Your task to perform on an android device: turn pop-ups off in chrome Image 0: 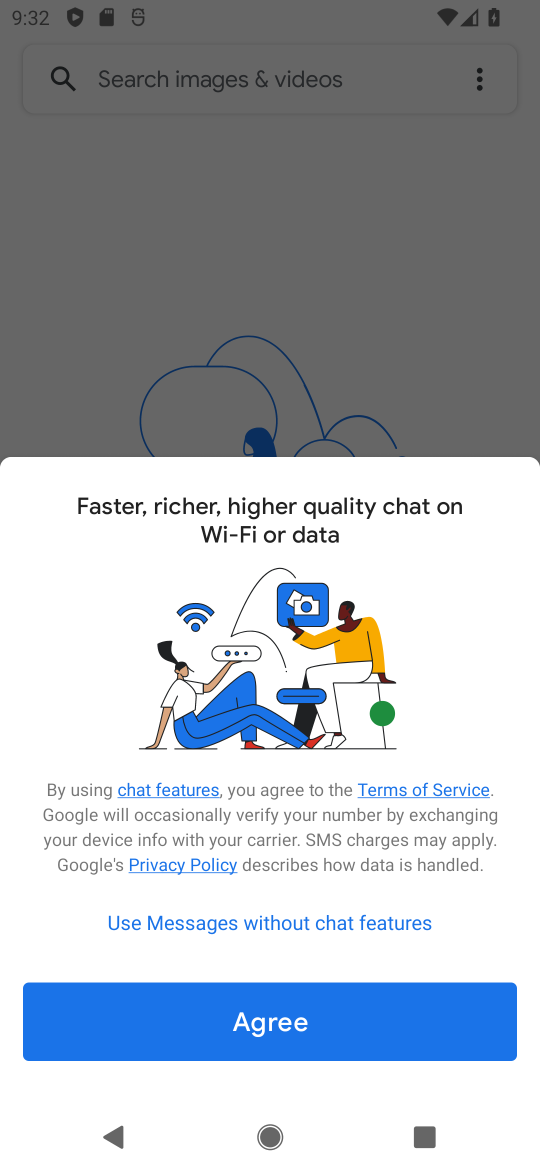
Step 0: press home button
Your task to perform on an android device: turn pop-ups off in chrome Image 1: 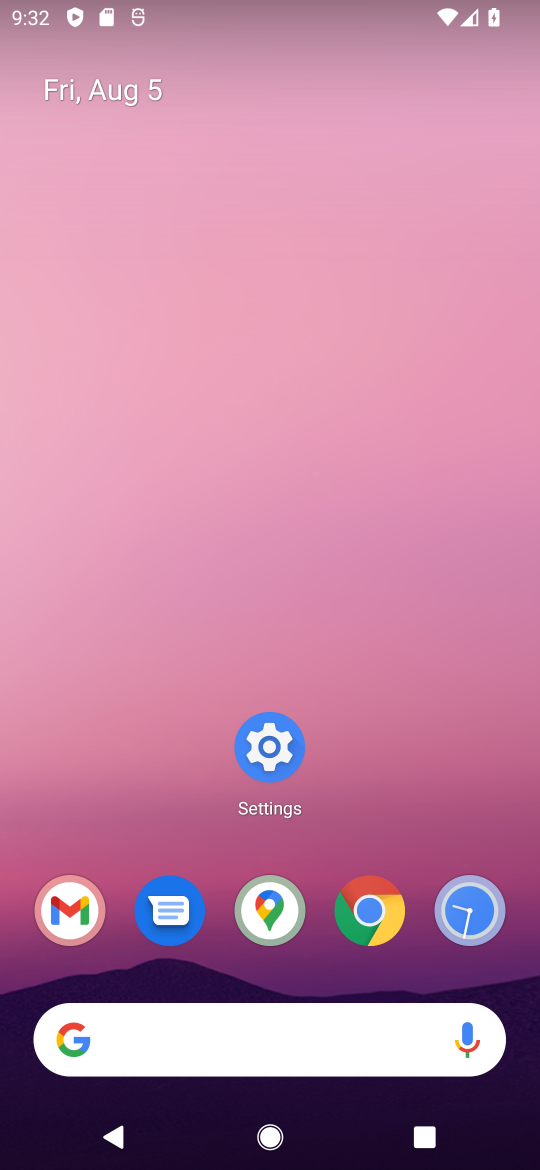
Step 1: click (374, 914)
Your task to perform on an android device: turn pop-ups off in chrome Image 2: 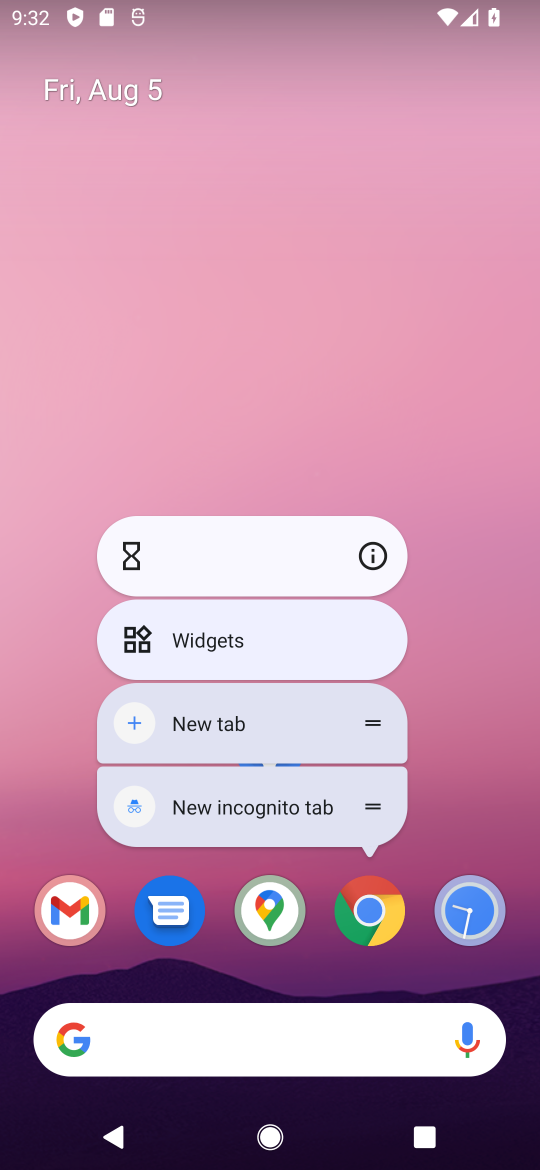
Step 2: click (374, 914)
Your task to perform on an android device: turn pop-ups off in chrome Image 3: 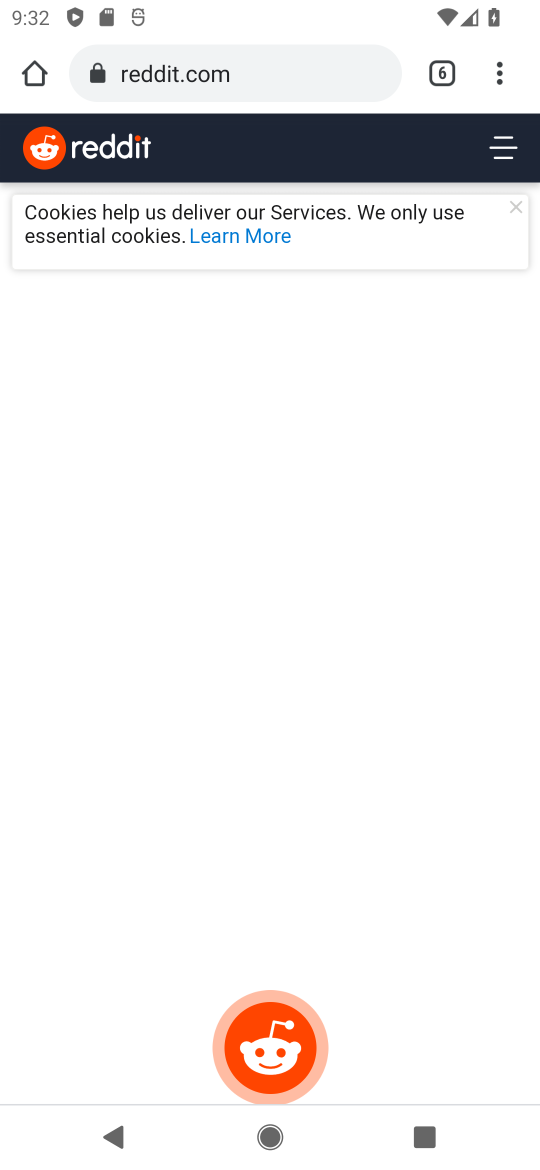
Step 3: drag from (497, 79) to (378, 928)
Your task to perform on an android device: turn pop-ups off in chrome Image 4: 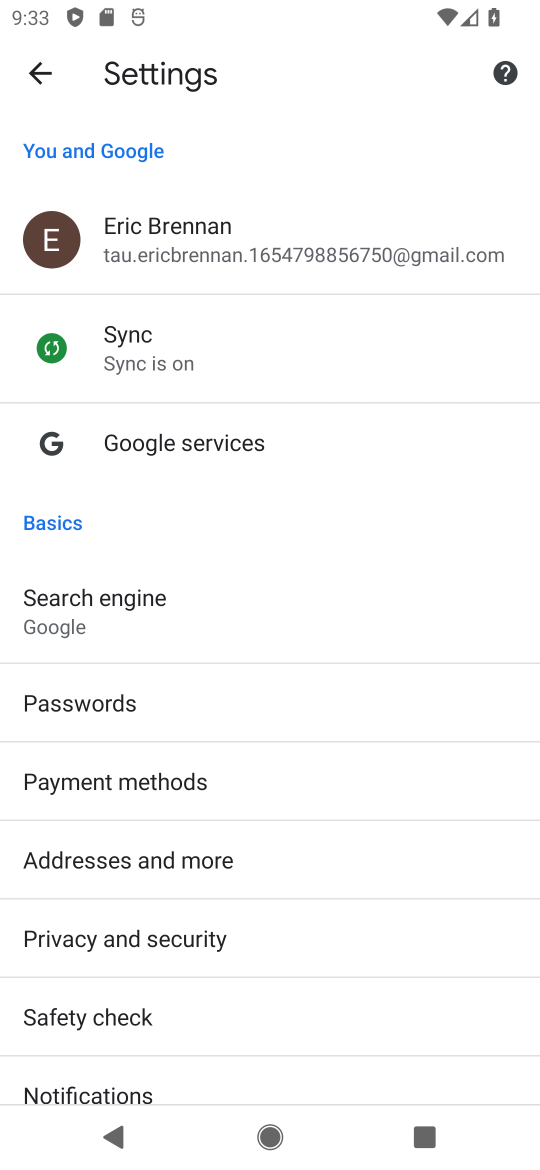
Step 4: drag from (238, 1001) to (530, 218)
Your task to perform on an android device: turn pop-ups off in chrome Image 5: 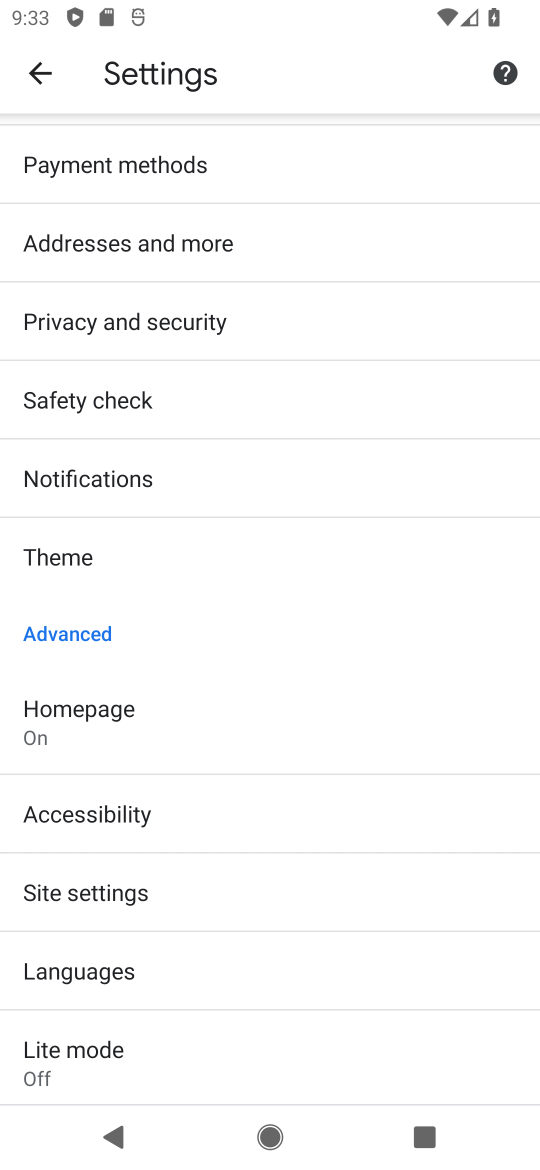
Step 5: click (131, 893)
Your task to perform on an android device: turn pop-ups off in chrome Image 6: 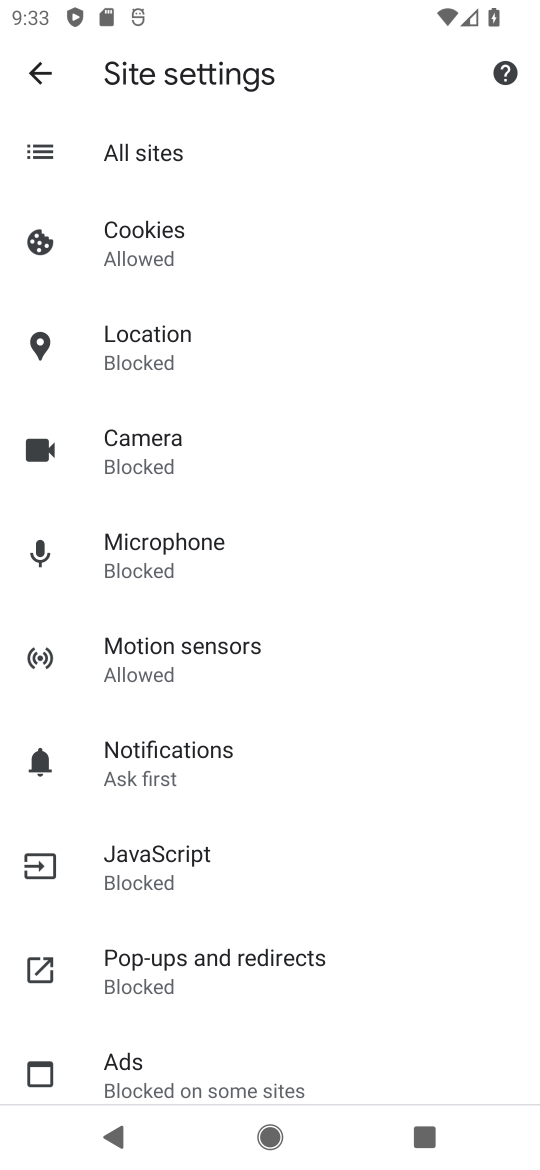
Step 6: click (181, 956)
Your task to perform on an android device: turn pop-ups off in chrome Image 7: 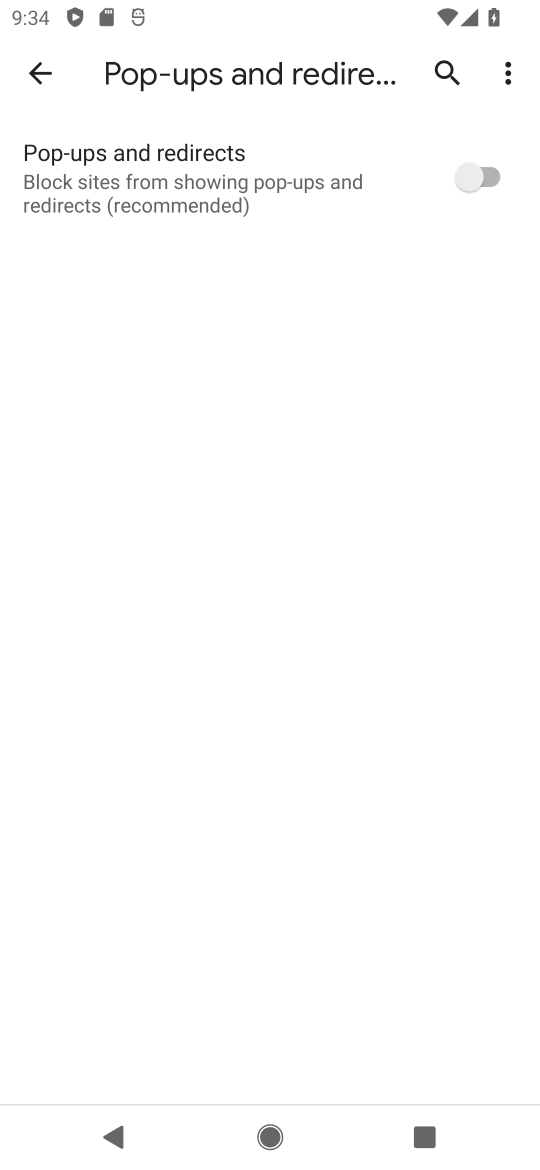
Step 7: task complete